Your task to perform on an android device: turn off data saver in the chrome app Image 0: 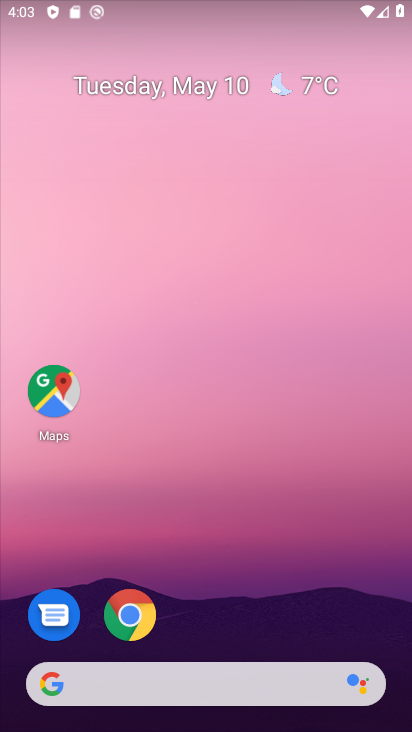
Step 0: drag from (221, 567) to (217, 53)
Your task to perform on an android device: turn off data saver in the chrome app Image 1: 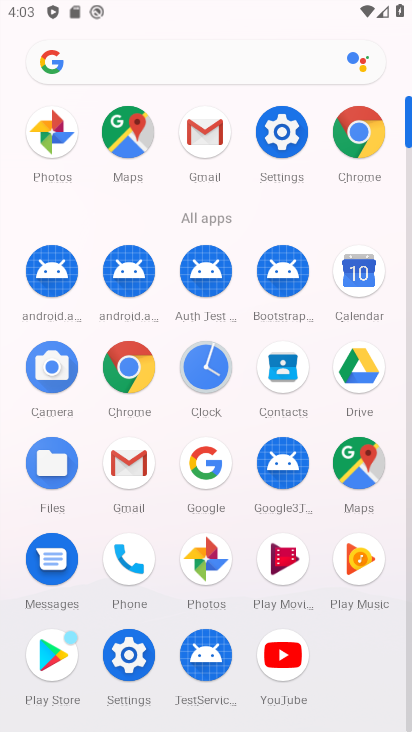
Step 1: drag from (9, 548) to (8, 170)
Your task to perform on an android device: turn off data saver in the chrome app Image 2: 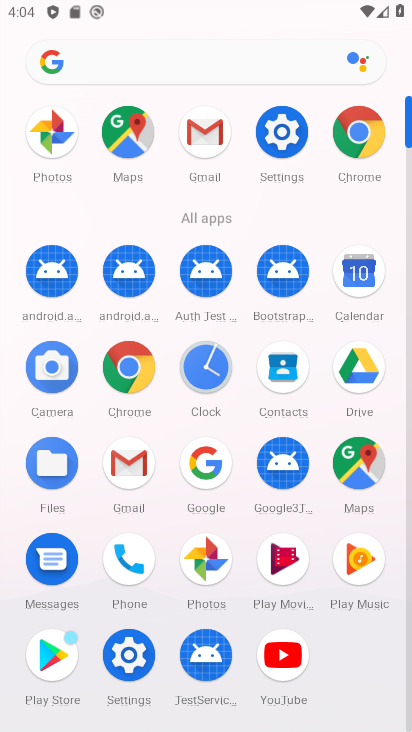
Step 2: click (359, 131)
Your task to perform on an android device: turn off data saver in the chrome app Image 3: 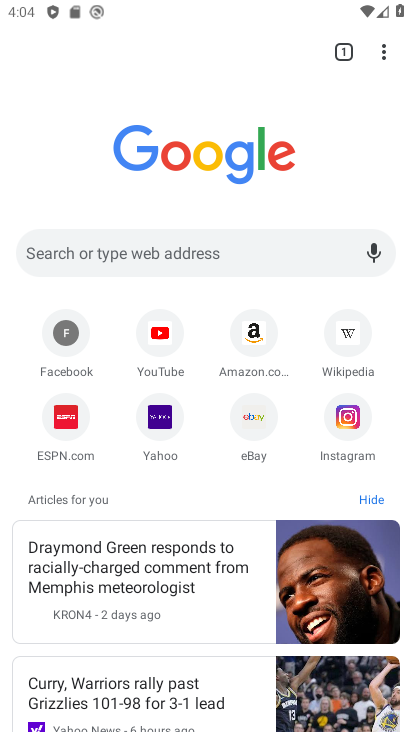
Step 3: drag from (384, 46) to (202, 490)
Your task to perform on an android device: turn off data saver in the chrome app Image 4: 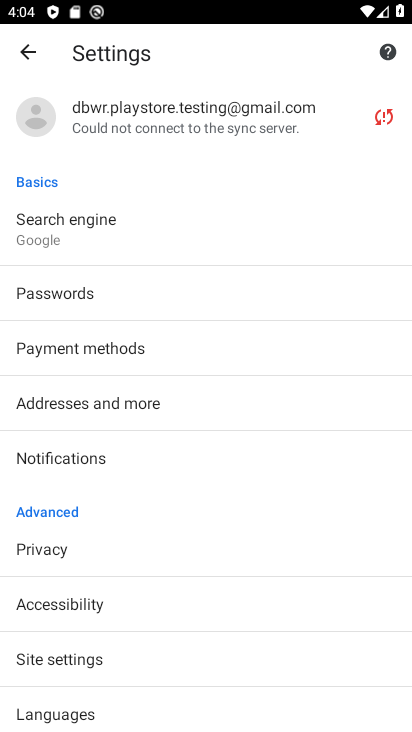
Step 4: drag from (195, 582) to (195, 281)
Your task to perform on an android device: turn off data saver in the chrome app Image 5: 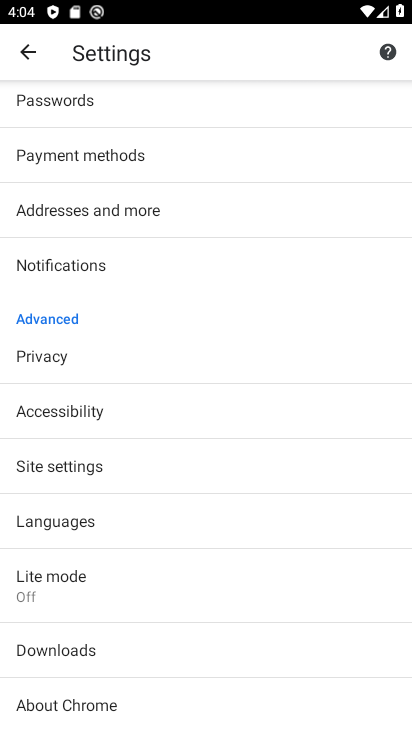
Step 5: click (105, 583)
Your task to perform on an android device: turn off data saver in the chrome app Image 6: 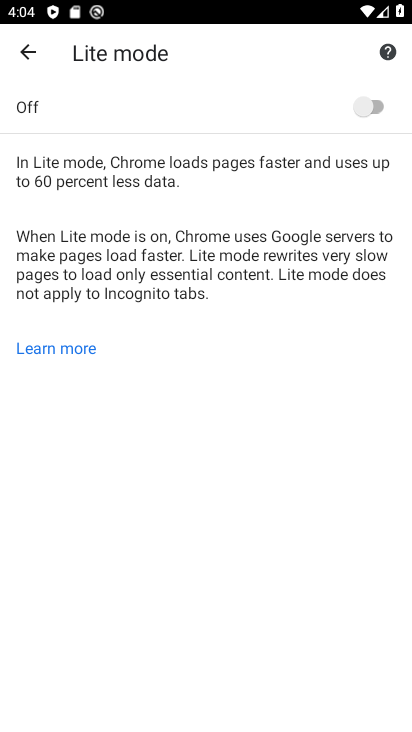
Step 6: task complete